Your task to perform on an android device: delete the emails in spam in the gmail app Image 0: 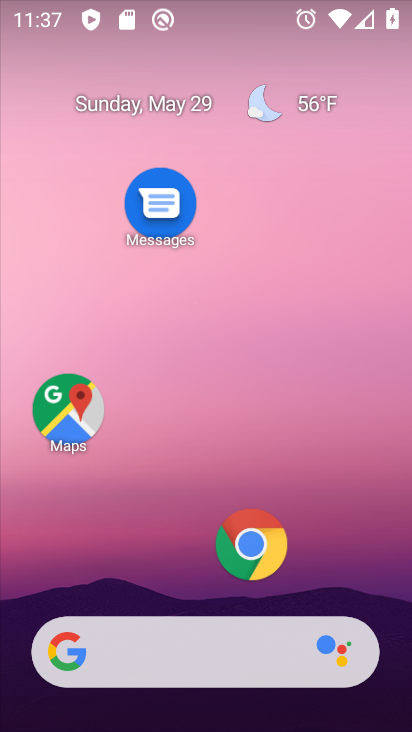
Step 0: drag from (193, 575) to (239, 152)
Your task to perform on an android device: delete the emails in spam in the gmail app Image 1: 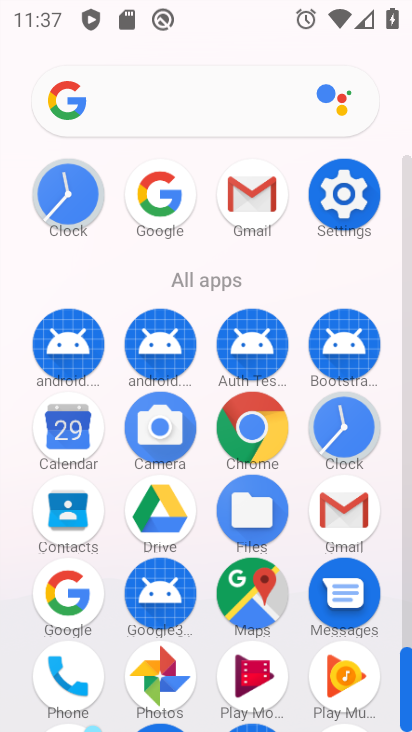
Step 1: click (337, 499)
Your task to perform on an android device: delete the emails in spam in the gmail app Image 2: 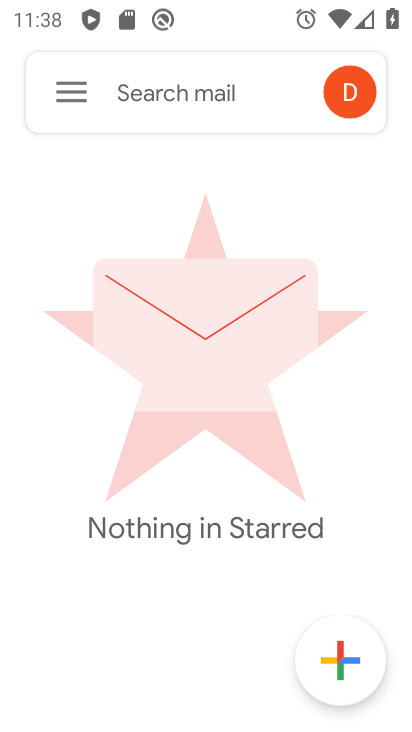
Step 2: click (74, 93)
Your task to perform on an android device: delete the emails in spam in the gmail app Image 3: 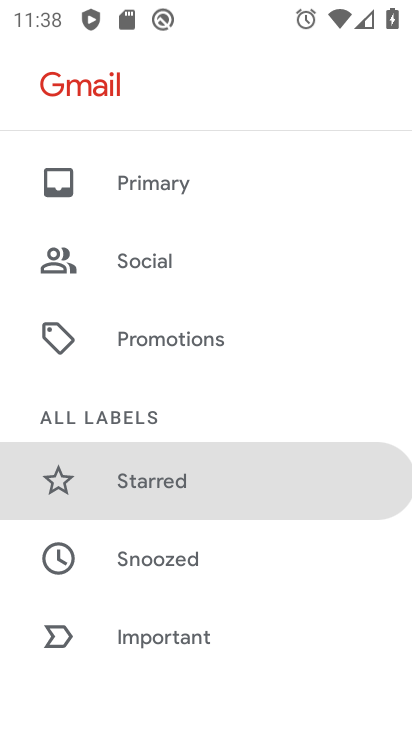
Step 3: drag from (158, 563) to (143, 141)
Your task to perform on an android device: delete the emails in spam in the gmail app Image 4: 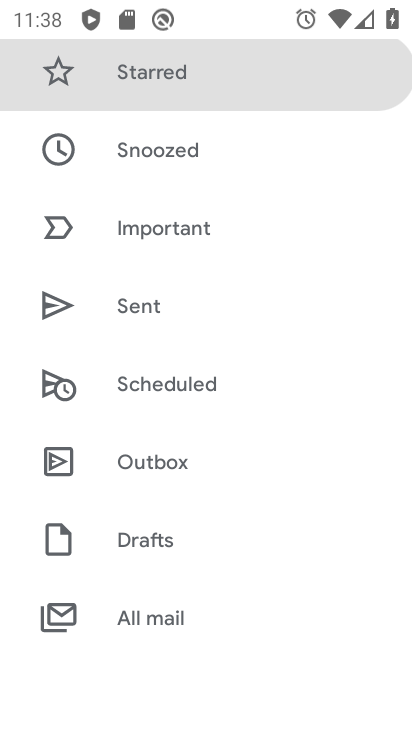
Step 4: drag from (141, 524) to (145, 131)
Your task to perform on an android device: delete the emails in spam in the gmail app Image 5: 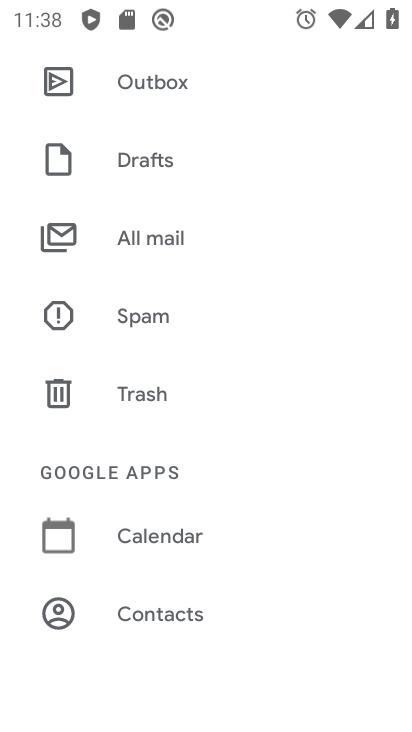
Step 5: click (109, 307)
Your task to perform on an android device: delete the emails in spam in the gmail app Image 6: 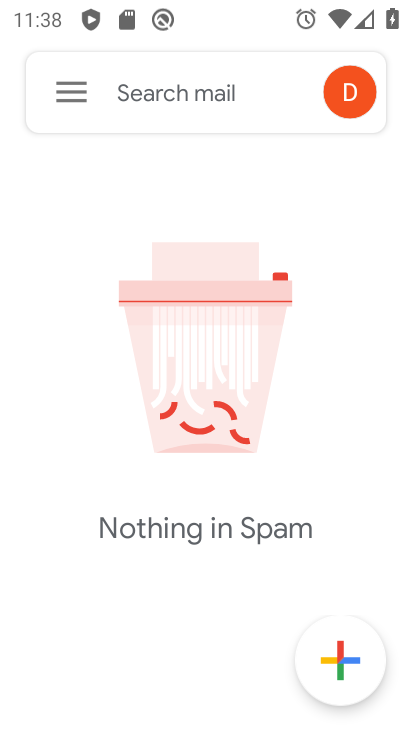
Step 6: task complete